Your task to perform on an android device: What's the weather like in Rio de Janeiro? Image 0: 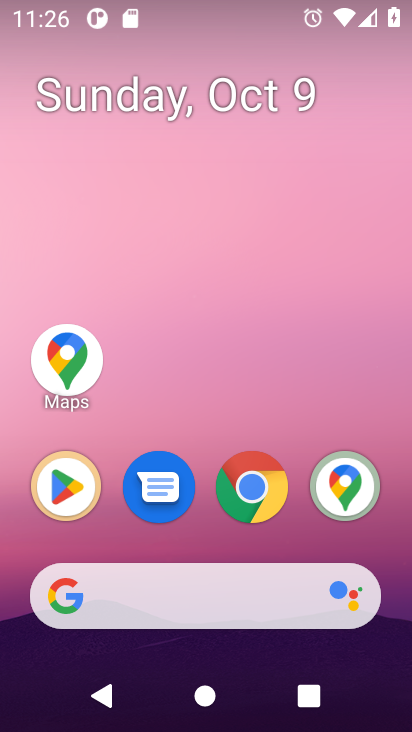
Step 0: drag from (206, 546) to (242, 90)
Your task to perform on an android device: What's the weather like in Rio de Janeiro? Image 1: 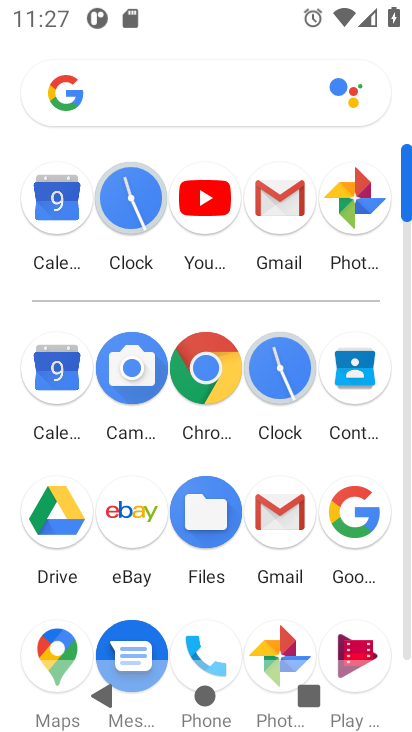
Step 1: click (338, 512)
Your task to perform on an android device: What's the weather like in Rio de Janeiro? Image 2: 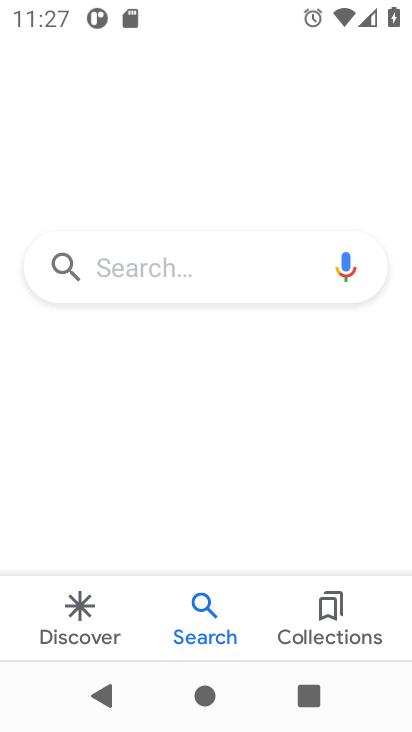
Step 2: click (184, 267)
Your task to perform on an android device: What's the weather like in Rio de Janeiro? Image 3: 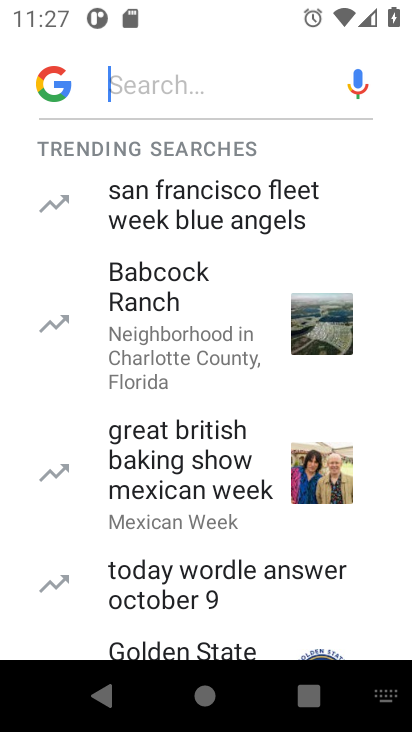
Step 3: type "What's the weather like in Rio de Janeiro?"
Your task to perform on an android device: What's the weather like in Rio de Janeiro? Image 4: 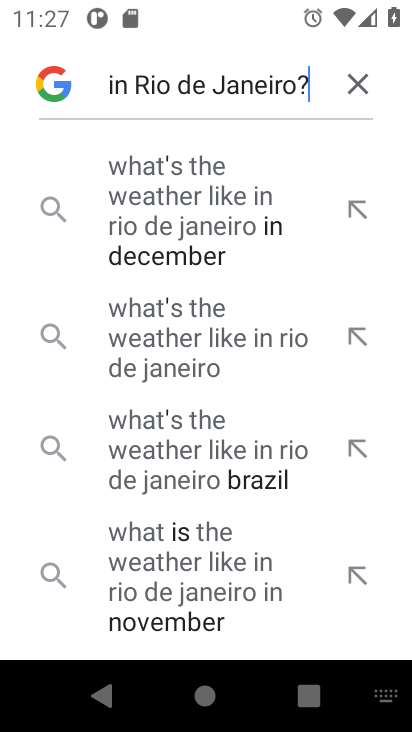
Step 4: type ""
Your task to perform on an android device: What's the weather like in Rio de Janeiro? Image 5: 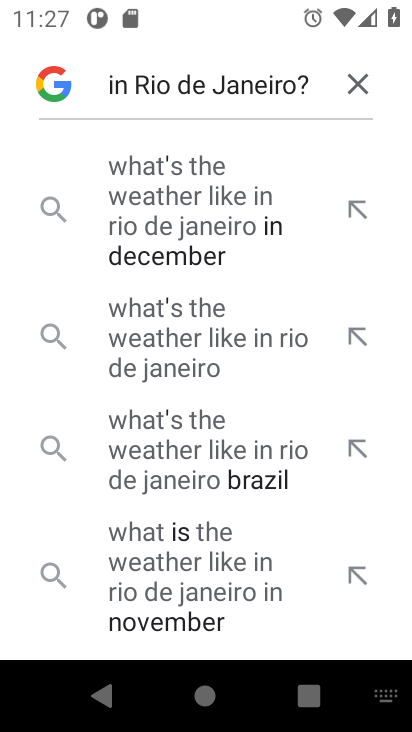
Step 5: click (197, 326)
Your task to perform on an android device: What's the weather like in Rio de Janeiro? Image 6: 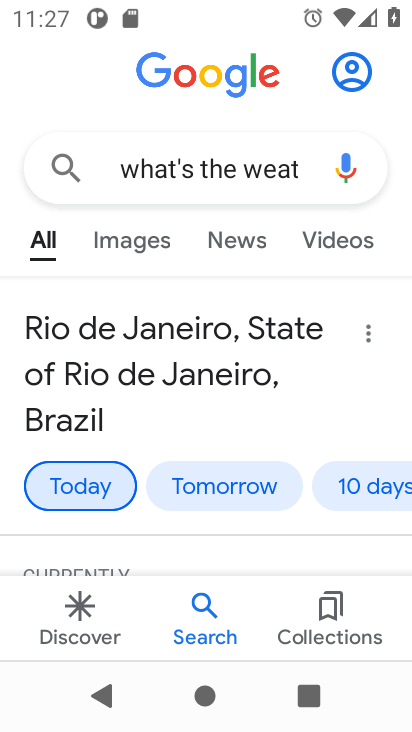
Step 6: task complete